Your task to perform on an android device: Open Google Chrome and open the bookmarks view Image 0: 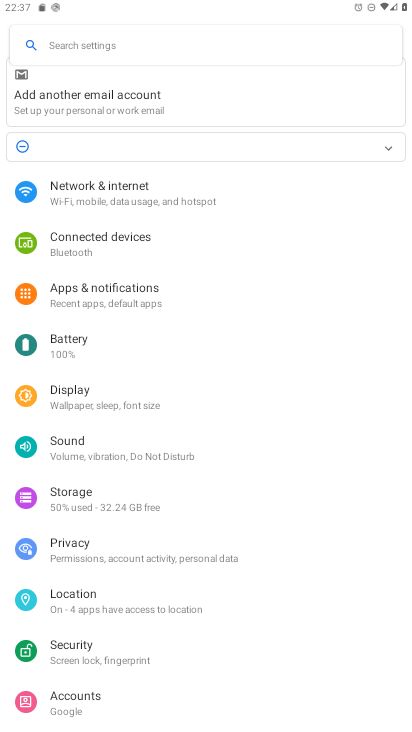
Step 0: press home button
Your task to perform on an android device: Open Google Chrome and open the bookmarks view Image 1: 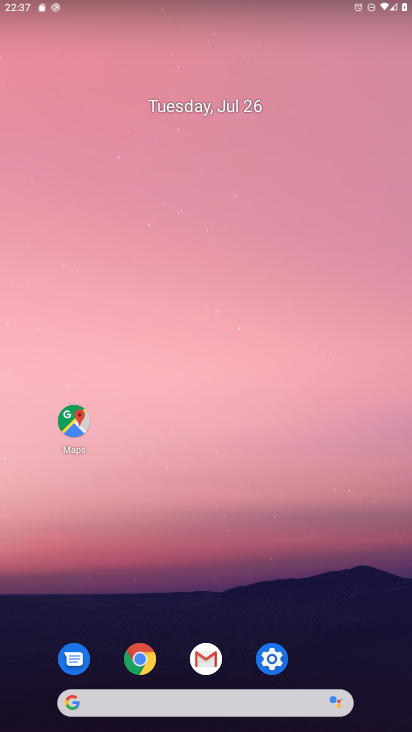
Step 1: click (141, 650)
Your task to perform on an android device: Open Google Chrome and open the bookmarks view Image 2: 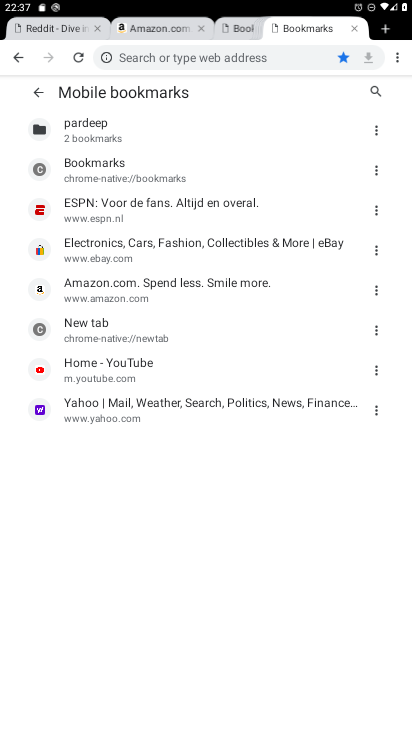
Step 2: click (394, 61)
Your task to perform on an android device: Open Google Chrome and open the bookmarks view Image 3: 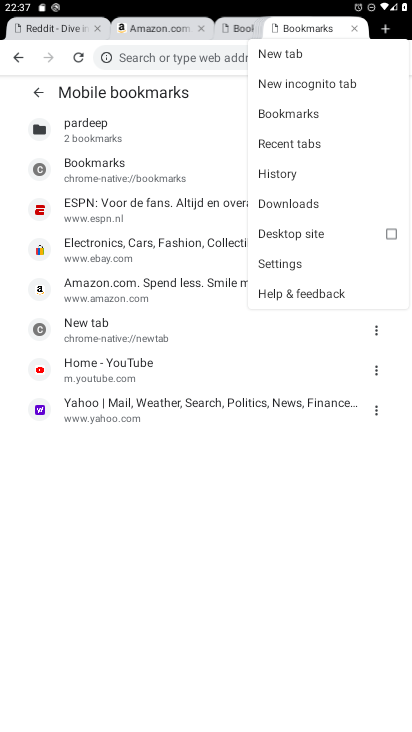
Step 3: click (272, 120)
Your task to perform on an android device: Open Google Chrome and open the bookmarks view Image 4: 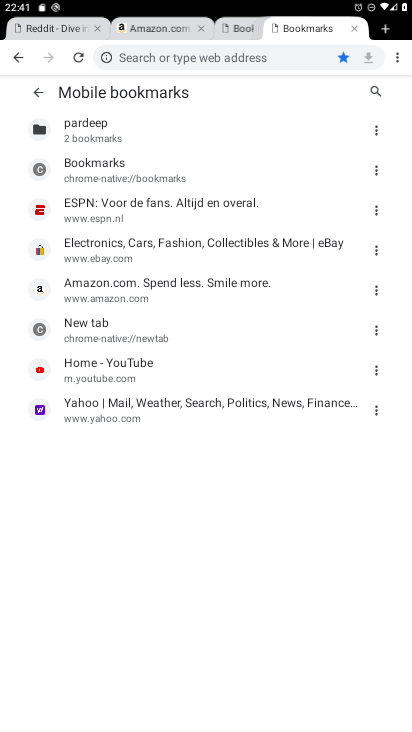
Step 4: task complete